Your task to perform on an android device: Open Chrome and go to settings Image 0: 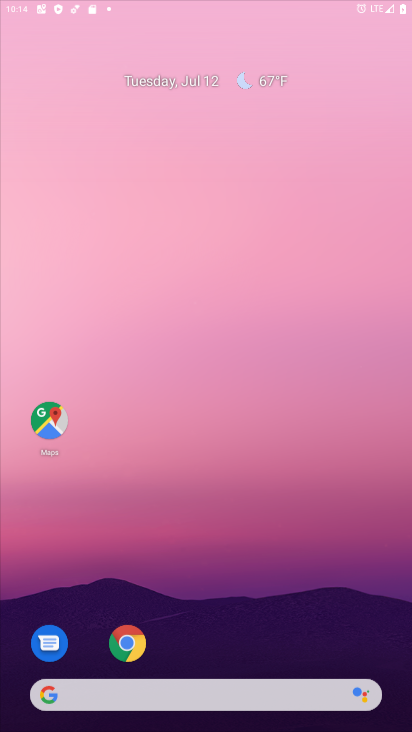
Step 0: click (312, 348)
Your task to perform on an android device: Open Chrome and go to settings Image 1: 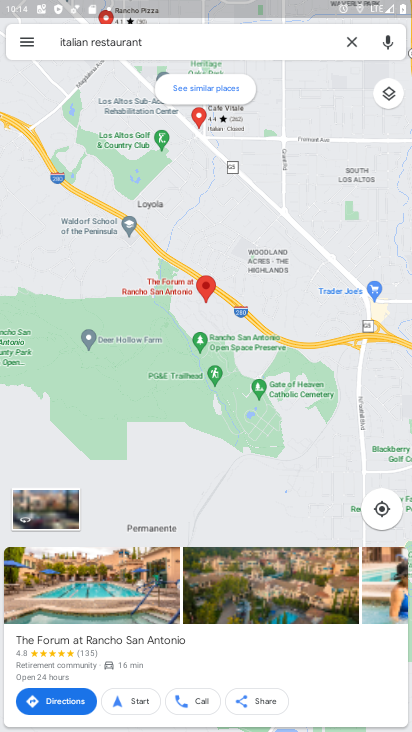
Step 1: press home button
Your task to perform on an android device: Open Chrome and go to settings Image 2: 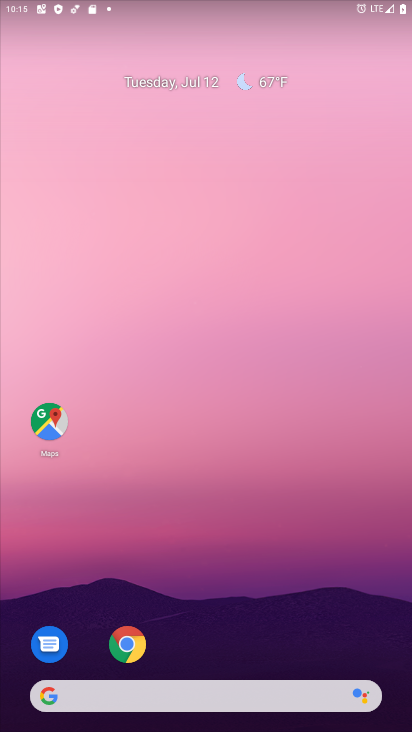
Step 2: drag from (201, 627) to (238, 271)
Your task to perform on an android device: Open Chrome and go to settings Image 3: 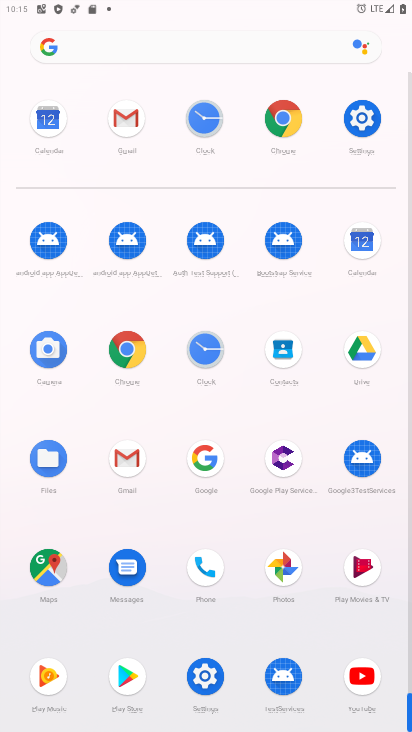
Step 3: click (127, 353)
Your task to perform on an android device: Open Chrome and go to settings Image 4: 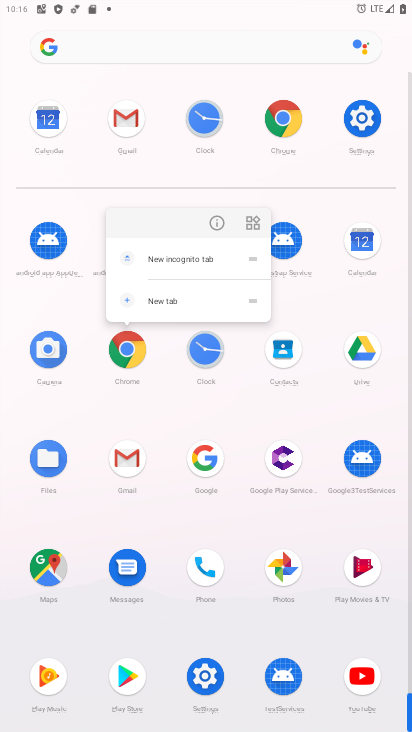
Step 4: click (221, 229)
Your task to perform on an android device: Open Chrome and go to settings Image 5: 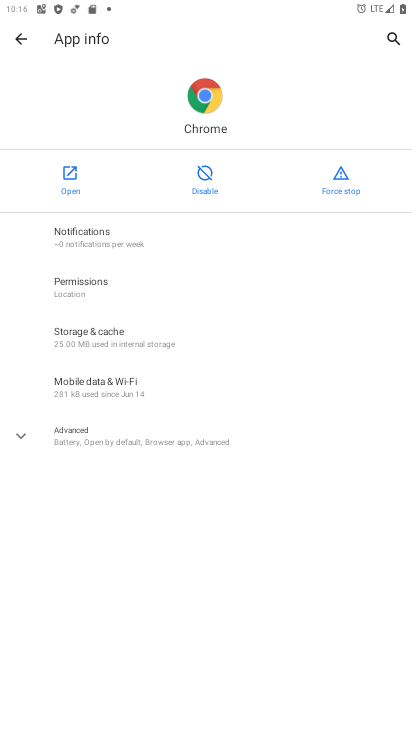
Step 5: click (51, 180)
Your task to perform on an android device: Open Chrome and go to settings Image 6: 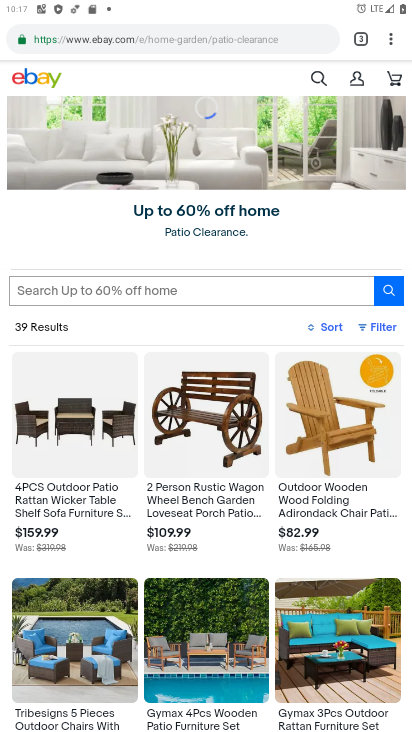
Step 6: click (392, 42)
Your task to perform on an android device: Open Chrome and go to settings Image 7: 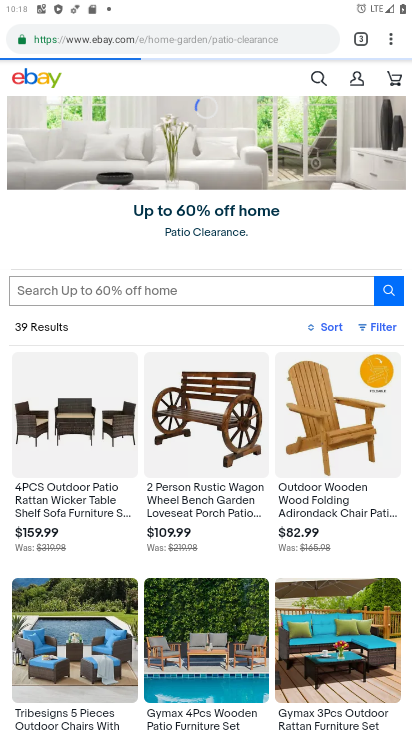
Step 7: task complete